Your task to perform on an android device: Open the web browser Image 0: 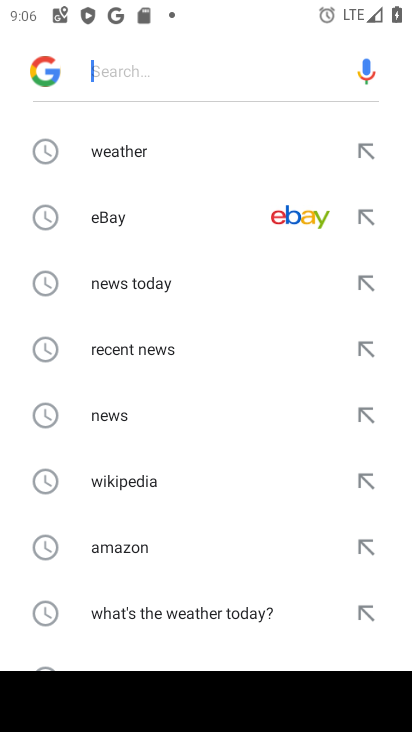
Step 0: press home button
Your task to perform on an android device: Open the web browser Image 1: 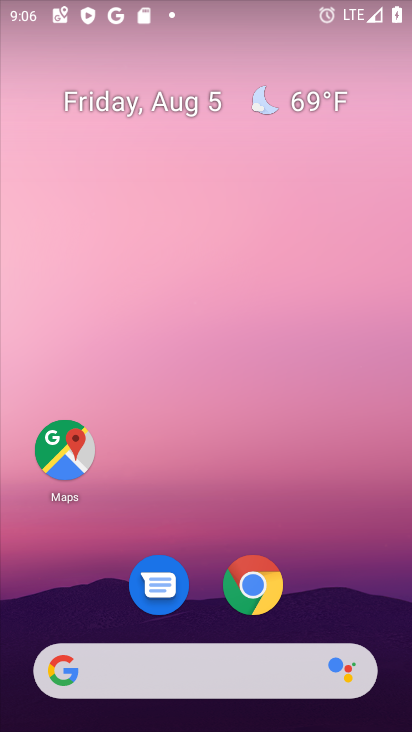
Step 1: click (198, 671)
Your task to perform on an android device: Open the web browser Image 2: 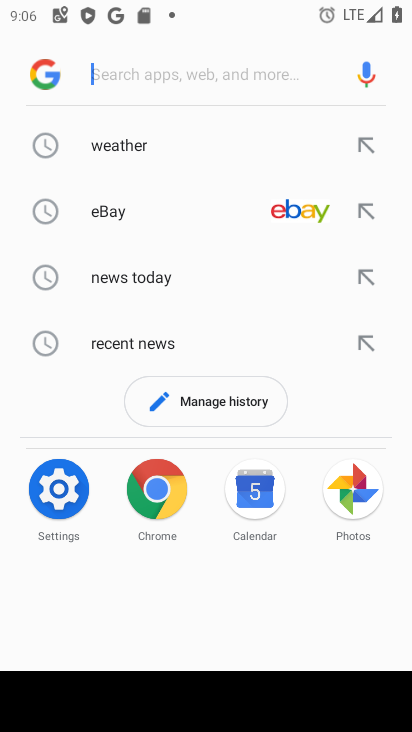
Step 2: task complete